Your task to perform on an android device: Search for Italian restaurants on Maps Image 0: 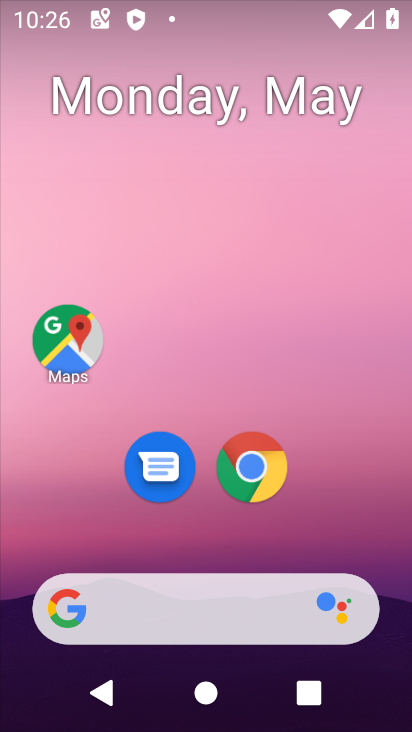
Step 0: click (69, 354)
Your task to perform on an android device: Search for Italian restaurants on Maps Image 1: 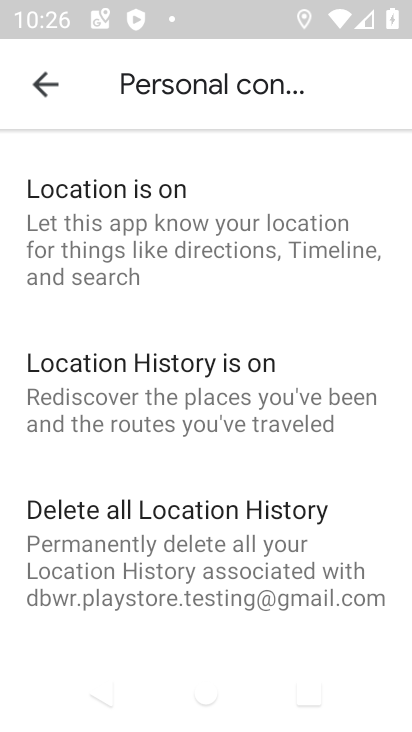
Step 1: click (303, 221)
Your task to perform on an android device: Search for Italian restaurants on Maps Image 2: 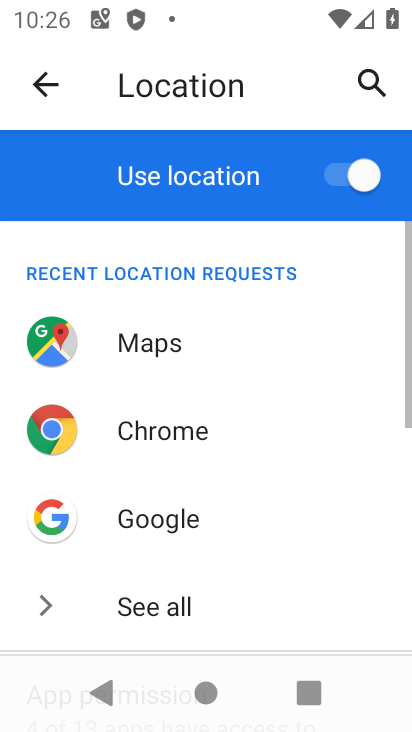
Step 2: click (49, 86)
Your task to perform on an android device: Search for Italian restaurants on Maps Image 3: 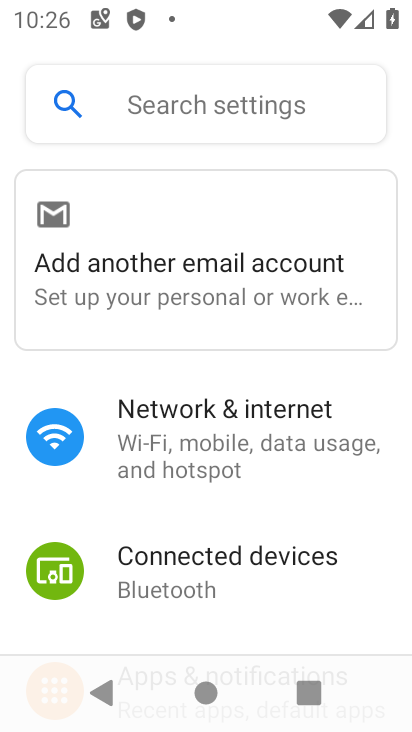
Step 3: press home button
Your task to perform on an android device: Search for Italian restaurants on Maps Image 4: 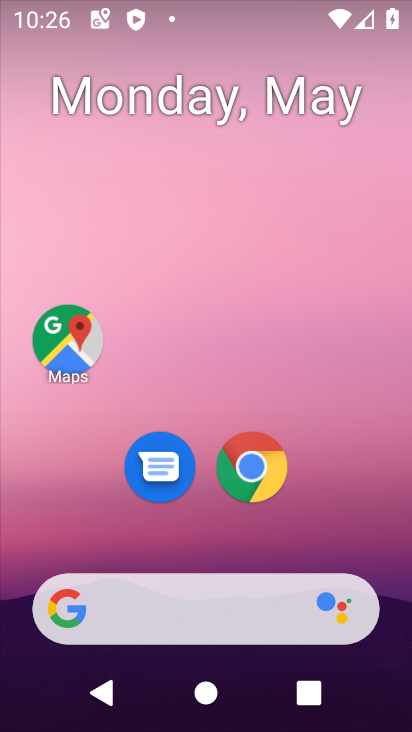
Step 4: click (71, 355)
Your task to perform on an android device: Search for Italian restaurants on Maps Image 5: 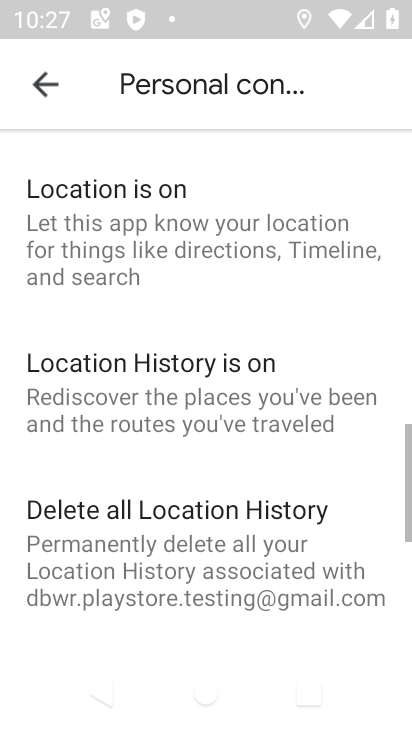
Step 5: click (45, 89)
Your task to perform on an android device: Search for Italian restaurants on Maps Image 6: 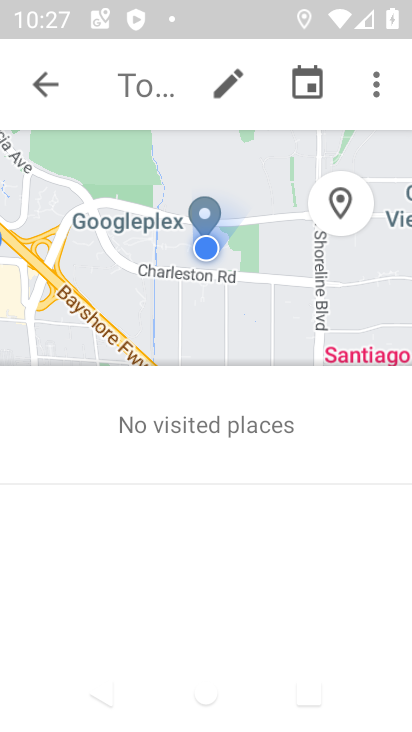
Step 6: click (38, 80)
Your task to perform on an android device: Search for Italian restaurants on Maps Image 7: 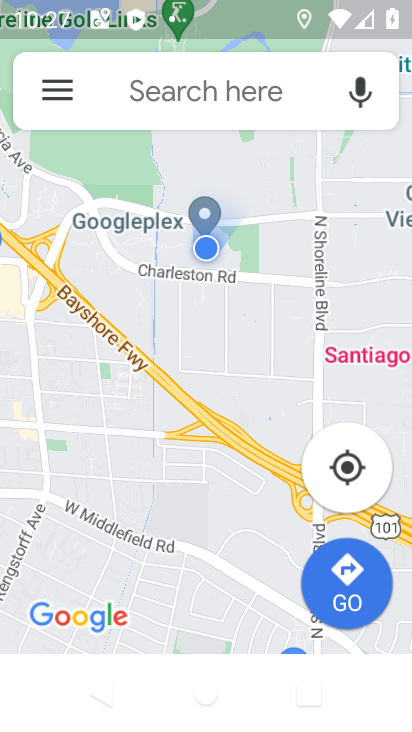
Step 7: click (187, 97)
Your task to perform on an android device: Search for Italian restaurants on Maps Image 8: 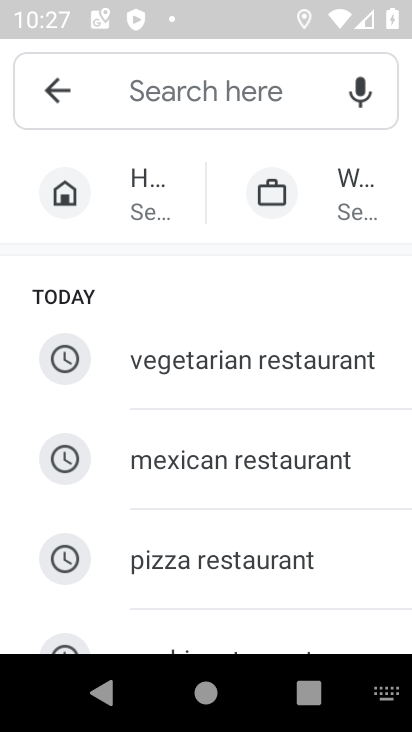
Step 8: type "Italian restaurants"
Your task to perform on an android device: Search for Italian restaurants on Maps Image 9: 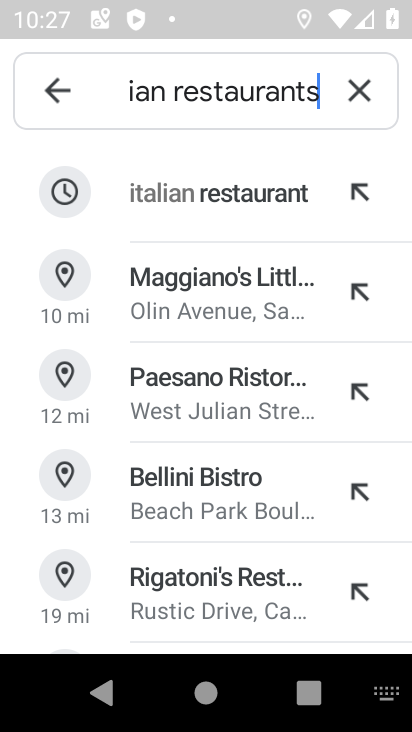
Step 9: click (217, 189)
Your task to perform on an android device: Search for Italian restaurants on Maps Image 10: 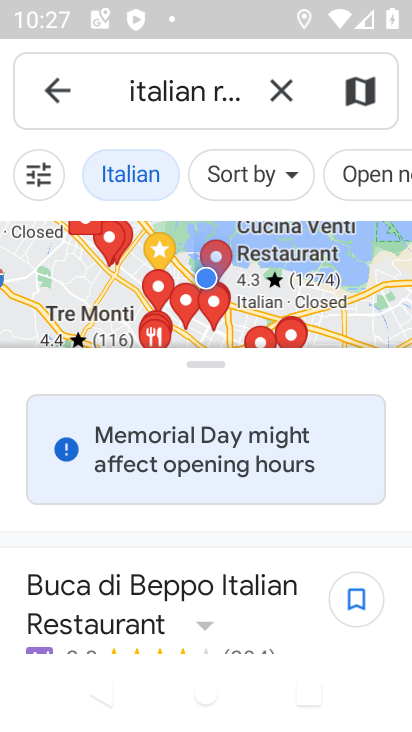
Step 10: task complete